Your task to perform on an android device: toggle location history Image 0: 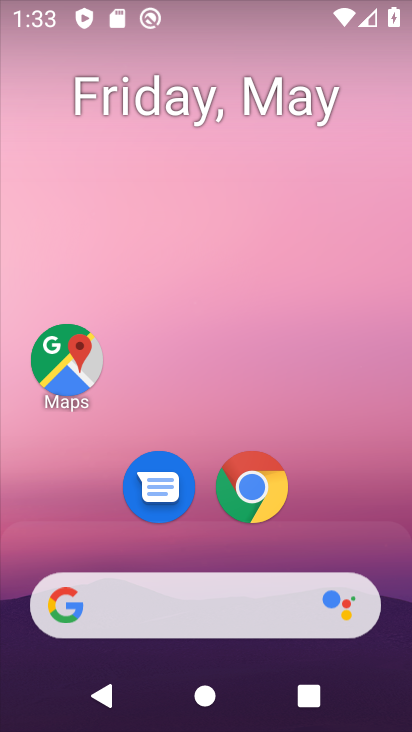
Step 0: click (61, 359)
Your task to perform on an android device: toggle location history Image 1: 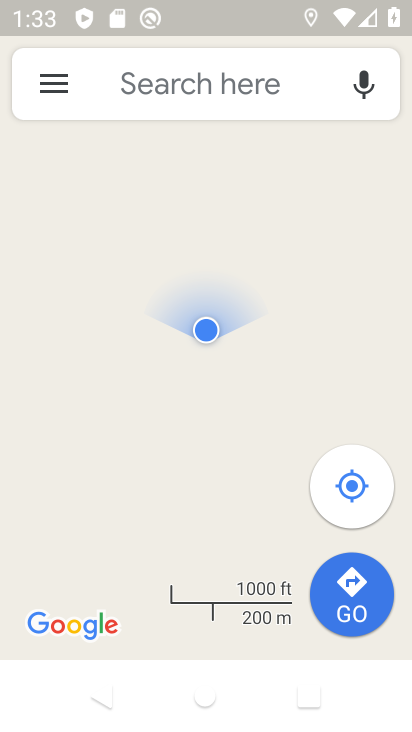
Step 1: click (62, 85)
Your task to perform on an android device: toggle location history Image 2: 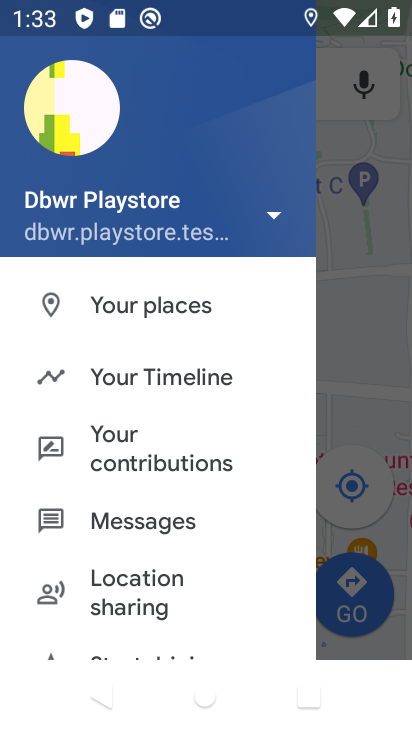
Step 2: click (127, 374)
Your task to perform on an android device: toggle location history Image 3: 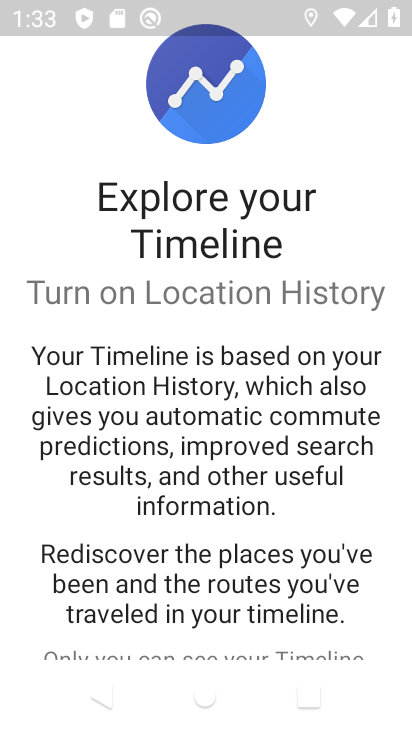
Step 3: drag from (192, 561) to (173, 249)
Your task to perform on an android device: toggle location history Image 4: 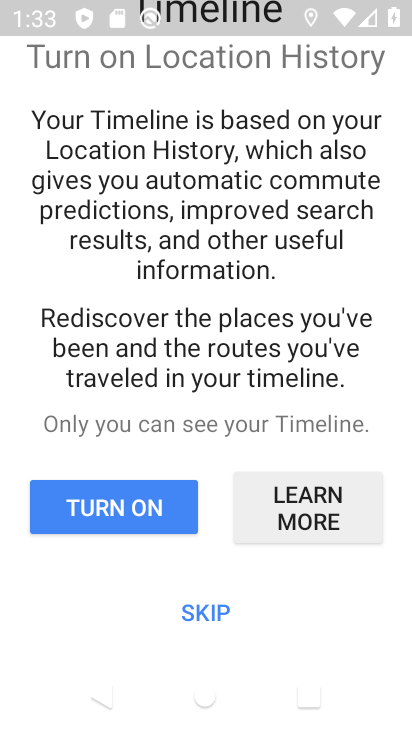
Step 4: click (200, 608)
Your task to perform on an android device: toggle location history Image 5: 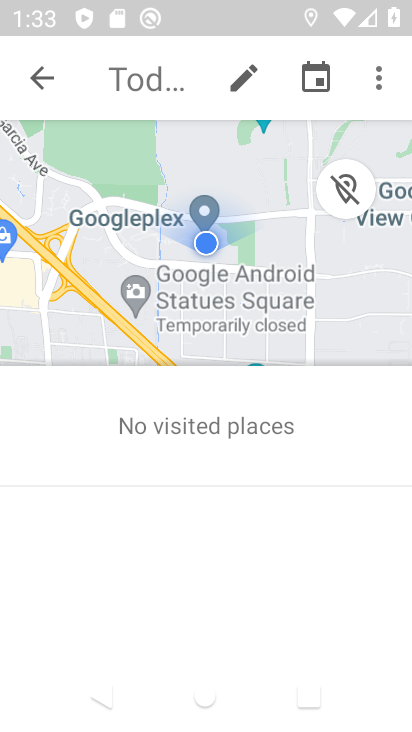
Step 5: click (383, 82)
Your task to perform on an android device: toggle location history Image 6: 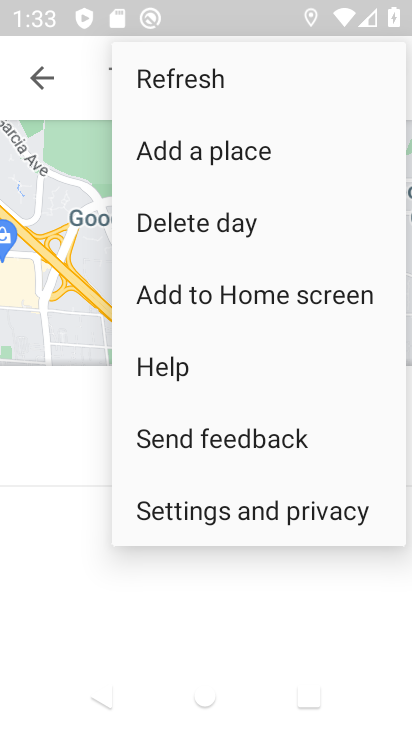
Step 6: click (219, 496)
Your task to perform on an android device: toggle location history Image 7: 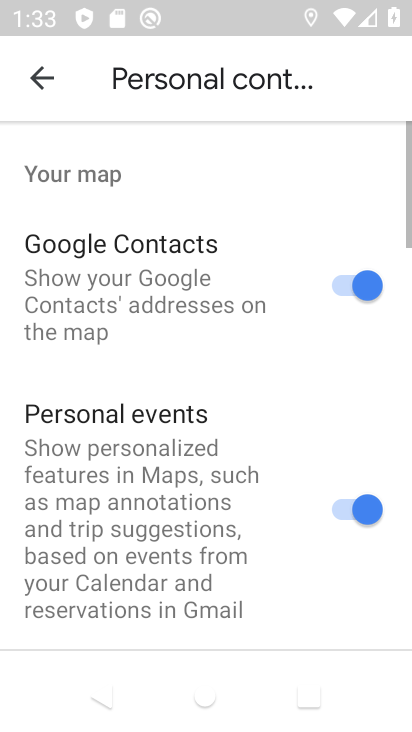
Step 7: drag from (175, 542) to (165, 118)
Your task to perform on an android device: toggle location history Image 8: 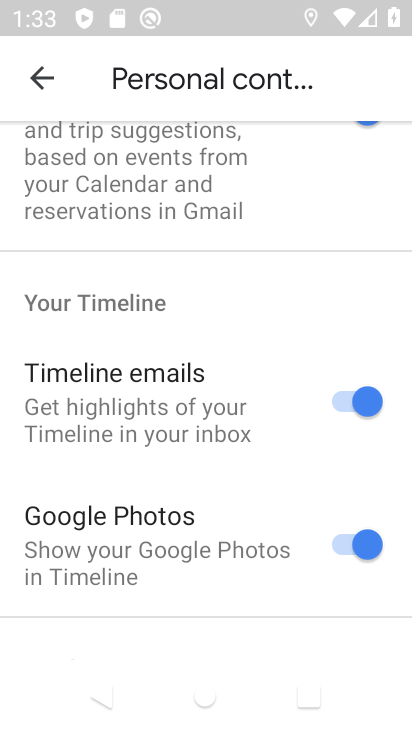
Step 8: drag from (157, 460) to (152, 61)
Your task to perform on an android device: toggle location history Image 9: 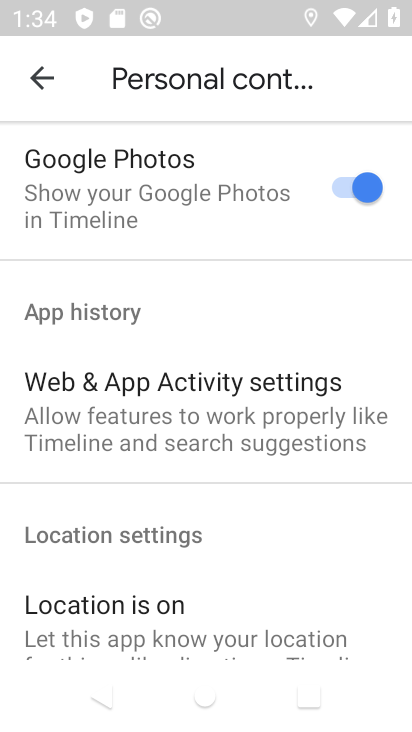
Step 9: drag from (147, 444) to (147, 88)
Your task to perform on an android device: toggle location history Image 10: 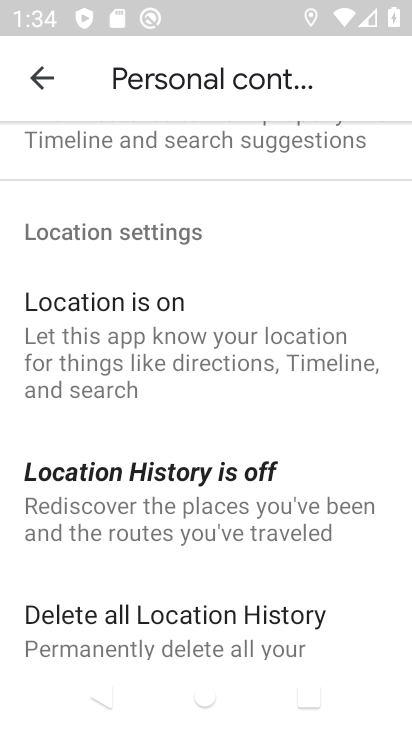
Step 10: click (118, 495)
Your task to perform on an android device: toggle location history Image 11: 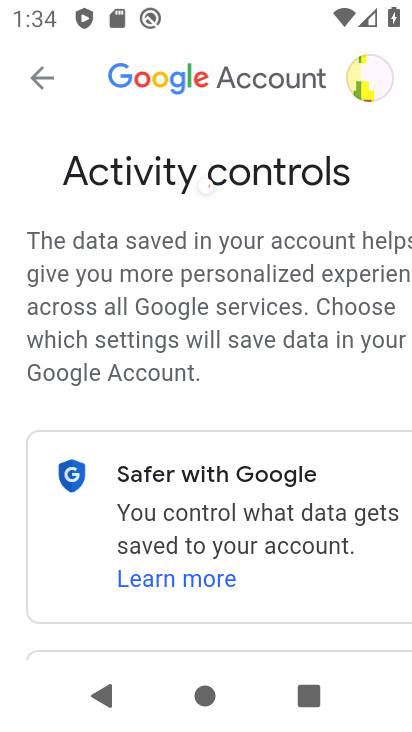
Step 11: drag from (178, 525) to (186, 12)
Your task to perform on an android device: toggle location history Image 12: 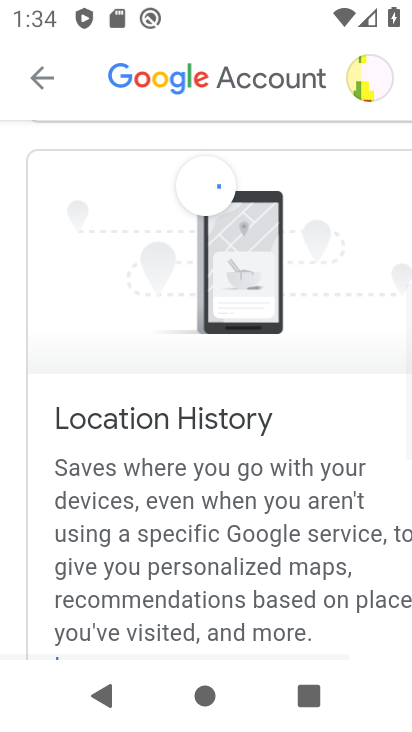
Step 12: drag from (201, 524) to (175, 59)
Your task to perform on an android device: toggle location history Image 13: 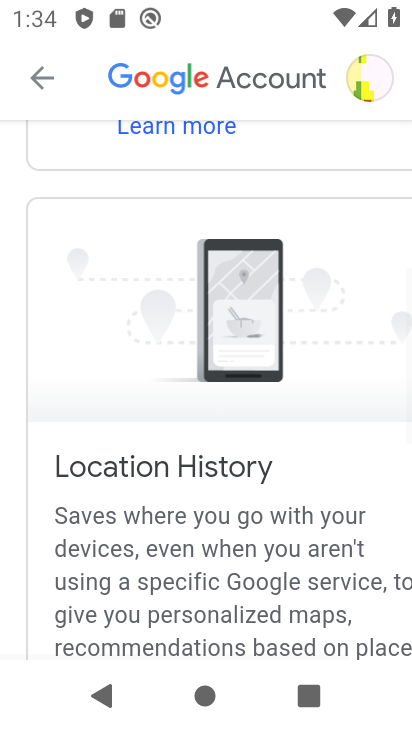
Step 13: drag from (172, 488) to (183, 8)
Your task to perform on an android device: toggle location history Image 14: 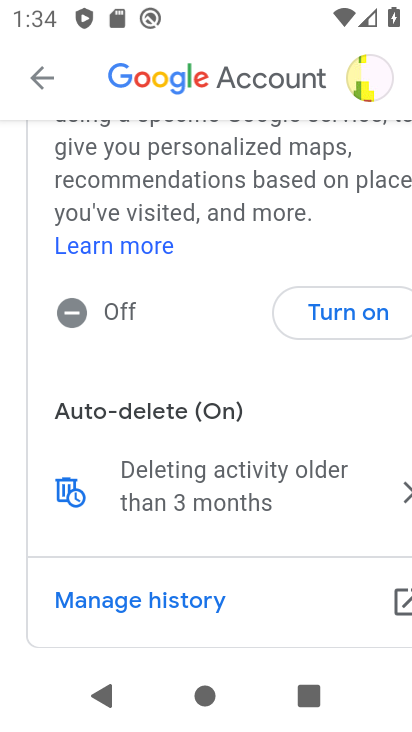
Step 14: click (332, 309)
Your task to perform on an android device: toggle location history Image 15: 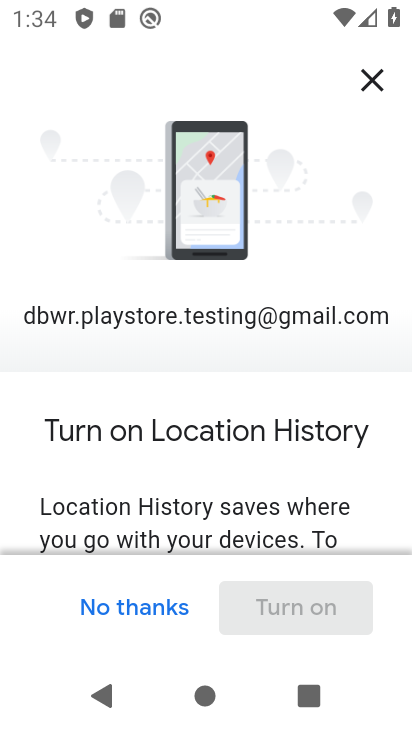
Step 15: drag from (215, 516) to (181, 7)
Your task to perform on an android device: toggle location history Image 16: 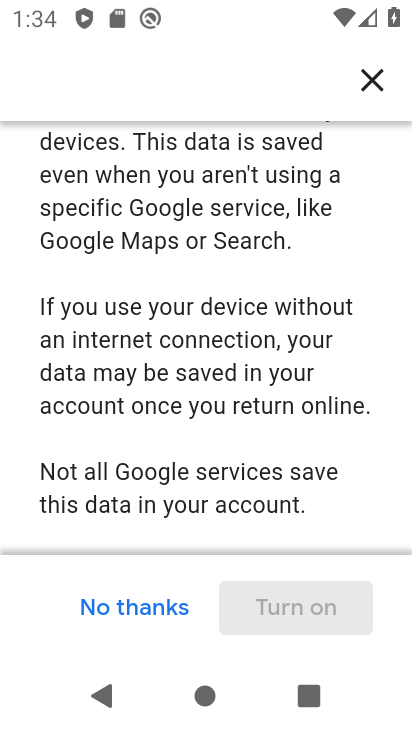
Step 16: drag from (181, 456) to (158, 19)
Your task to perform on an android device: toggle location history Image 17: 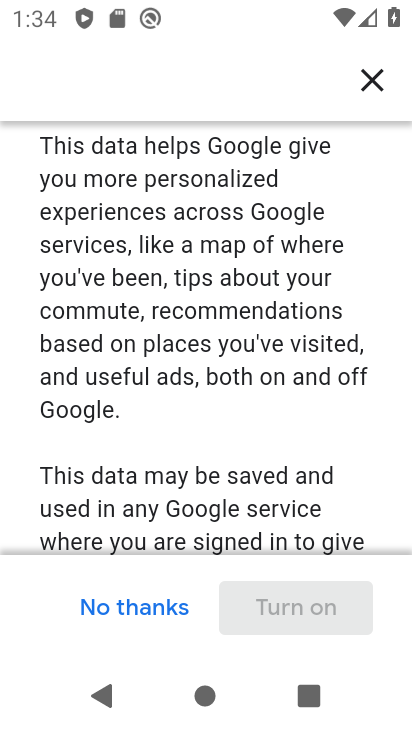
Step 17: drag from (167, 387) to (165, 5)
Your task to perform on an android device: toggle location history Image 18: 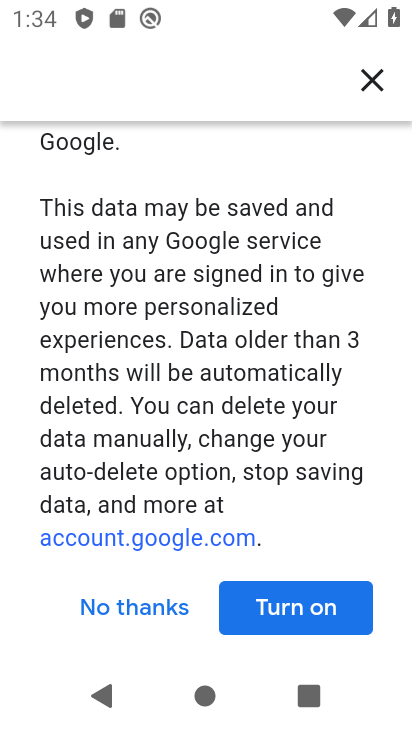
Step 18: drag from (190, 436) to (201, 191)
Your task to perform on an android device: toggle location history Image 19: 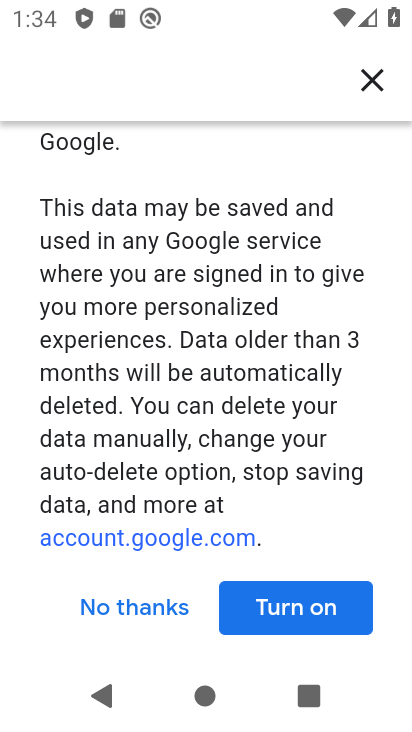
Step 19: click (288, 611)
Your task to perform on an android device: toggle location history Image 20: 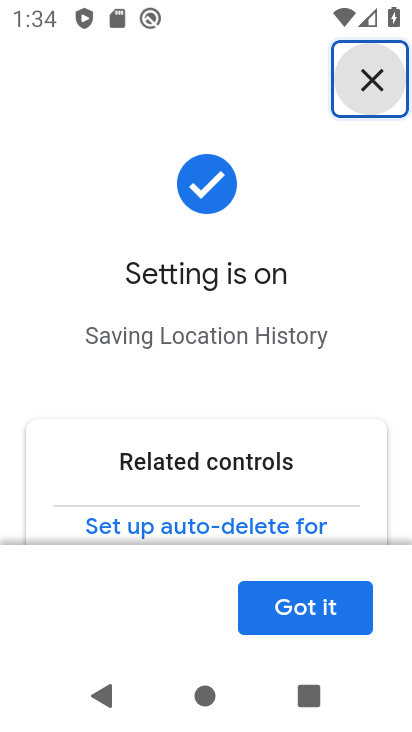
Step 20: click (288, 610)
Your task to perform on an android device: toggle location history Image 21: 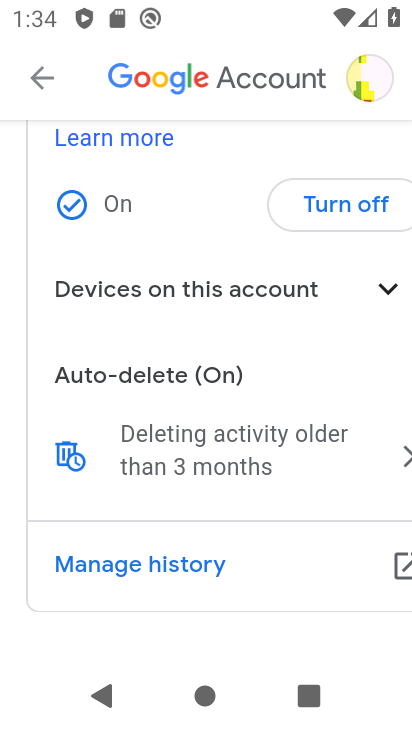
Step 21: task complete